Your task to perform on an android device: Open accessibility settings Image 0: 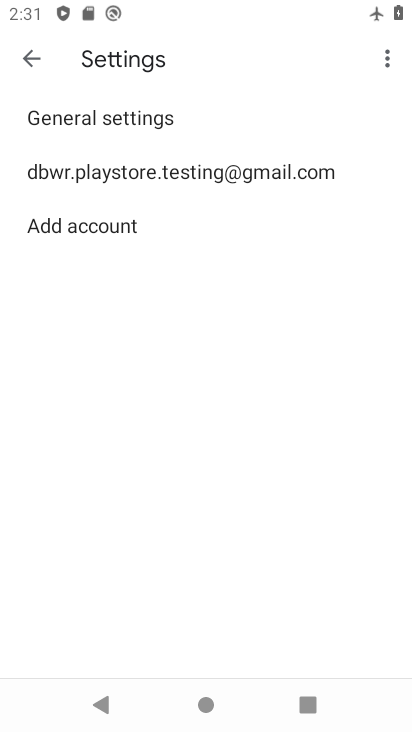
Step 0: press home button
Your task to perform on an android device: Open accessibility settings Image 1: 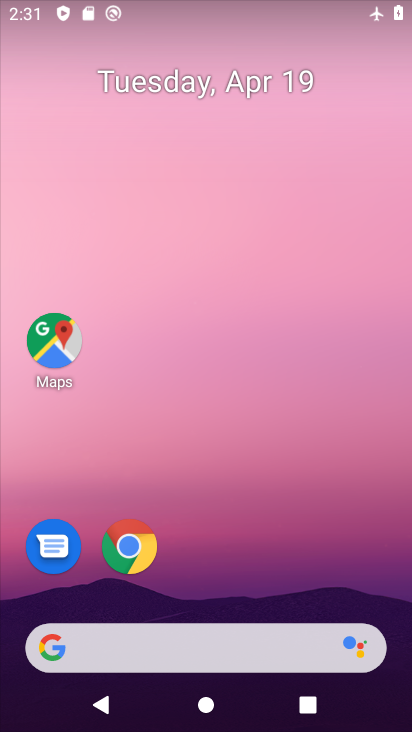
Step 1: drag from (188, 628) to (179, 122)
Your task to perform on an android device: Open accessibility settings Image 2: 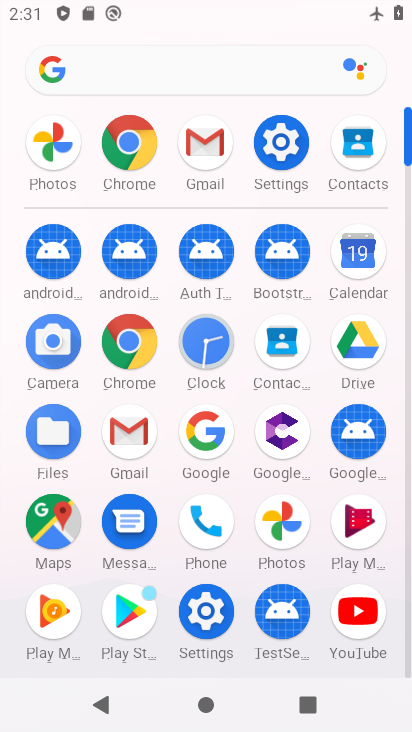
Step 2: click (292, 133)
Your task to perform on an android device: Open accessibility settings Image 3: 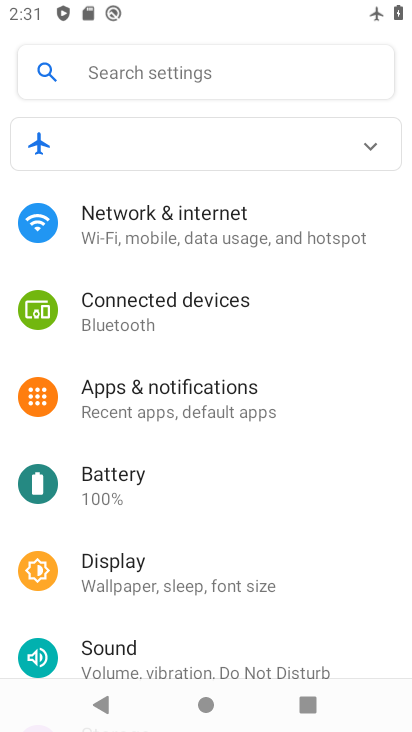
Step 3: drag from (156, 516) to (161, 30)
Your task to perform on an android device: Open accessibility settings Image 4: 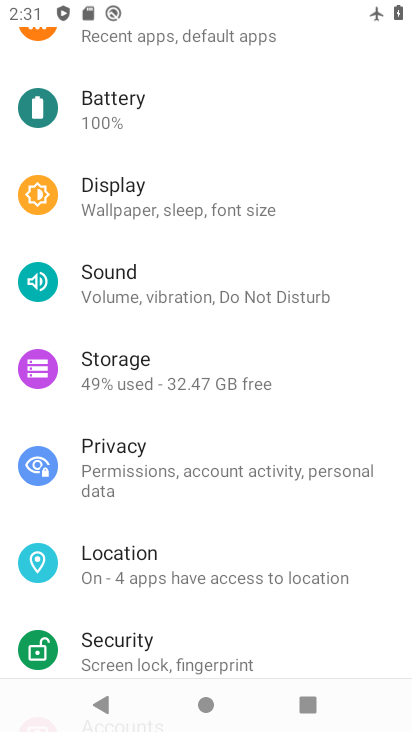
Step 4: drag from (176, 626) to (137, 36)
Your task to perform on an android device: Open accessibility settings Image 5: 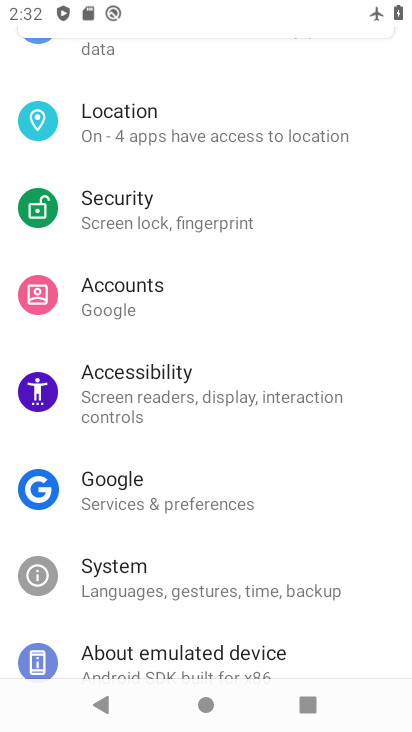
Step 5: click (122, 385)
Your task to perform on an android device: Open accessibility settings Image 6: 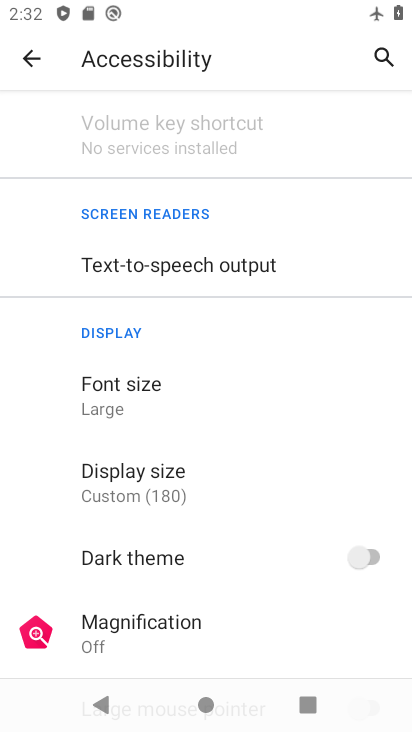
Step 6: task complete